Your task to perform on an android device: Open my contact list Image 0: 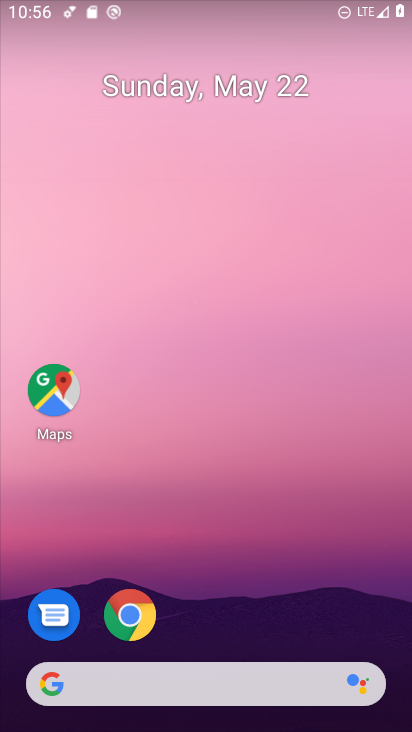
Step 0: drag from (256, 528) to (240, 140)
Your task to perform on an android device: Open my contact list Image 1: 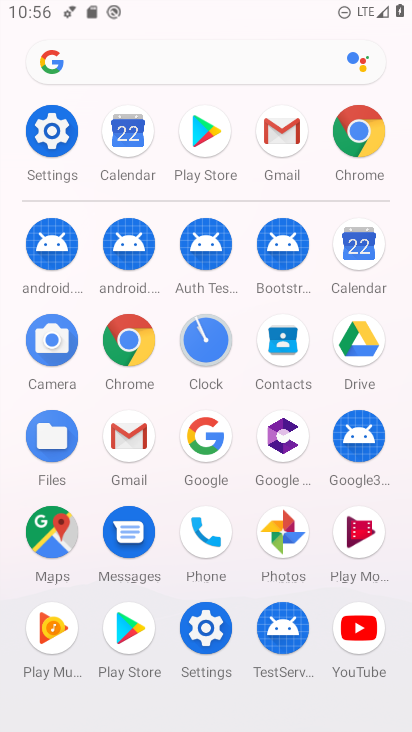
Step 1: click (274, 340)
Your task to perform on an android device: Open my contact list Image 2: 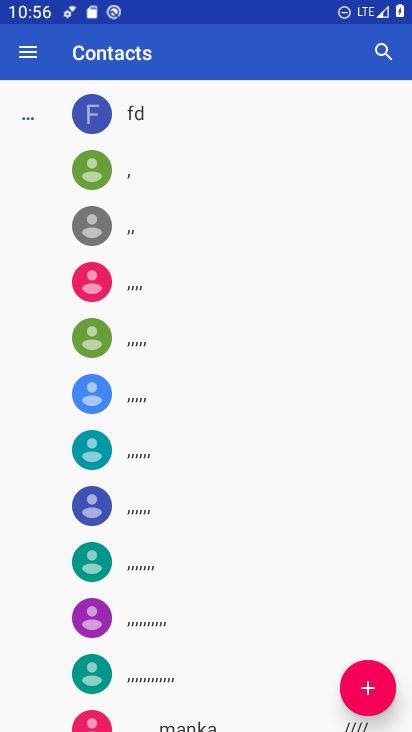
Step 2: task complete